Your task to perform on an android device: visit the assistant section in the google photos Image 0: 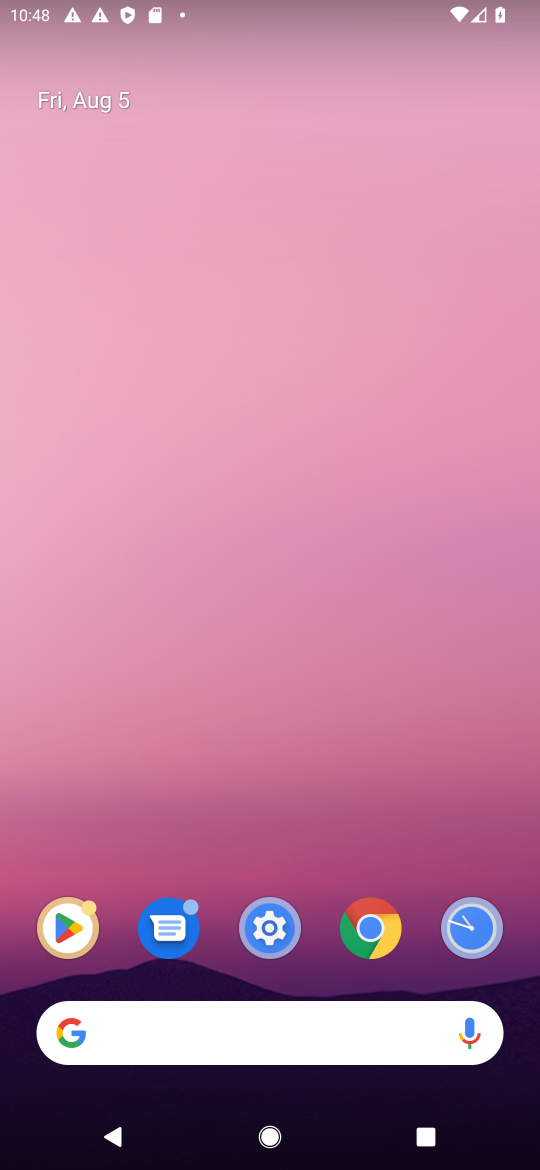
Step 0: drag from (311, 970) to (298, 39)
Your task to perform on an android device: visit the assistant section in the google photos Image 1: 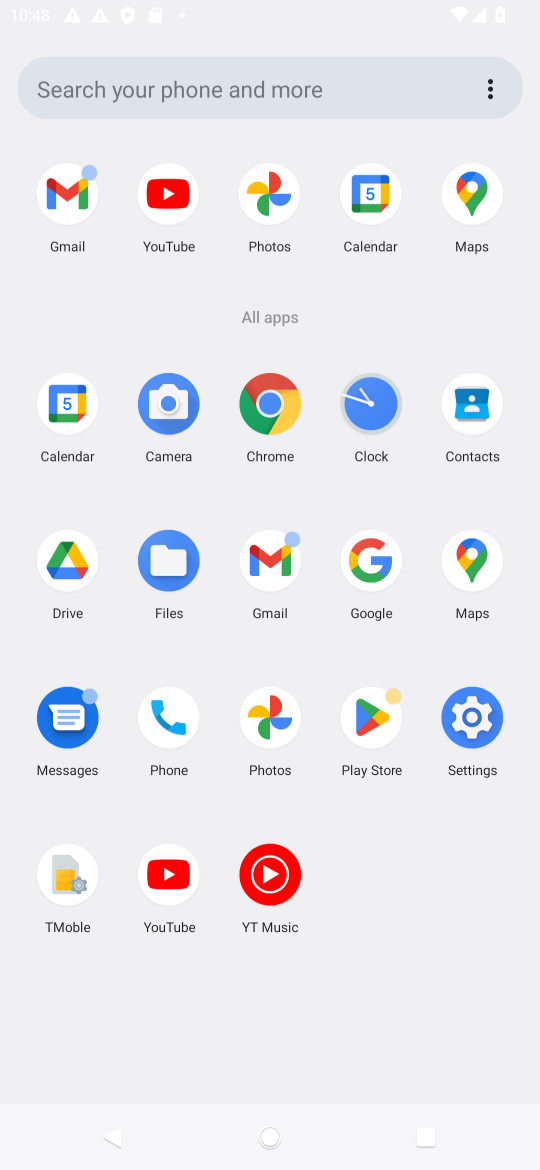
Step 1: click (263, 690)
Your task to perform on an android device: visit the assistant section in the google photos Image 2: 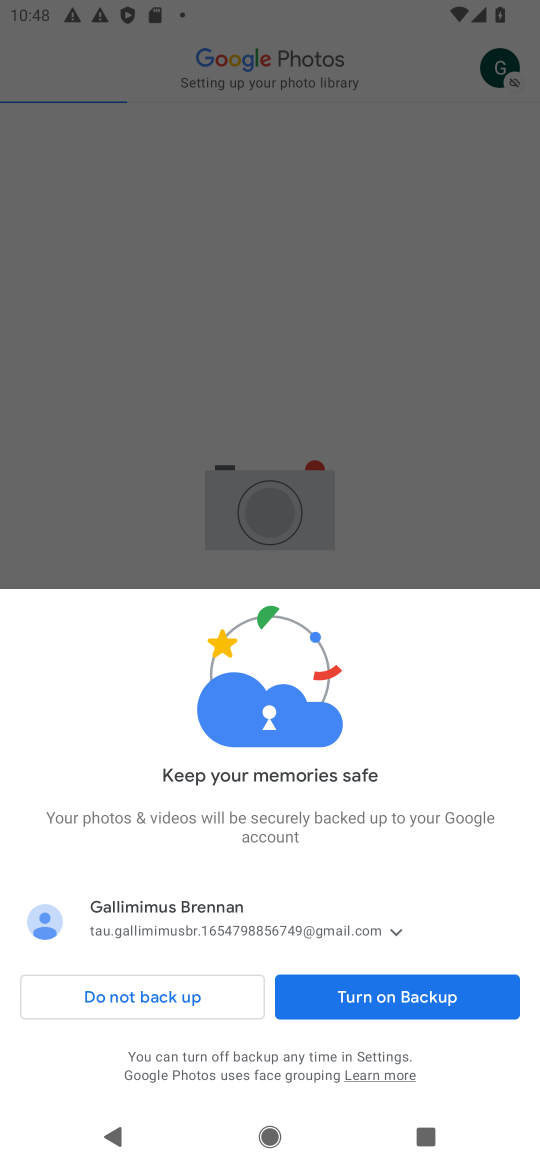
Step 2: click (326, 1011)
Your task to perform on an android device: visit the assistant section in the google photos Image 3: 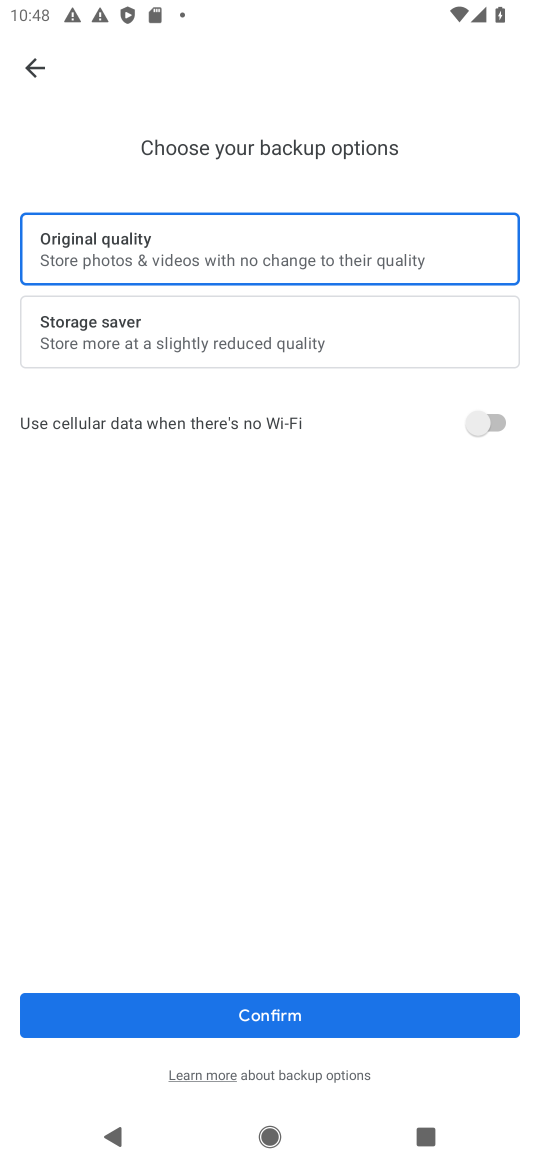
Step 3: click (274, 1011)
Your task to perform on an android device: visit the assistant section in the google photos Image 4: 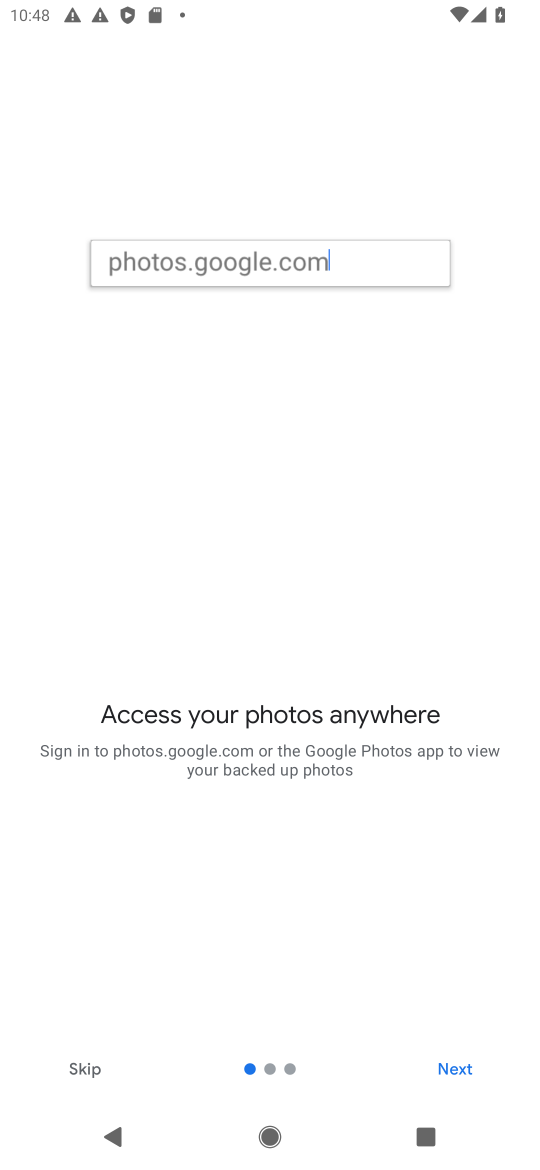
Step 4: click (109, 1067)
Your task to perform on an android device: visit the assistant section in the google photos Image 5: 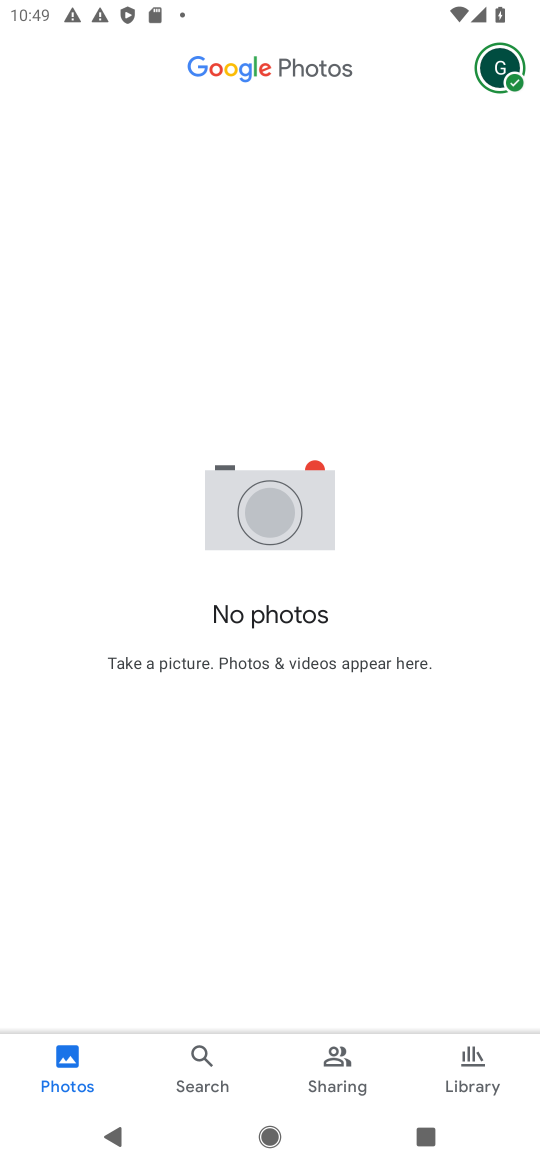
Step 5: click (403, 1072)
Your task to perform on an android device: visit the assistant section in the google photos Image 6: 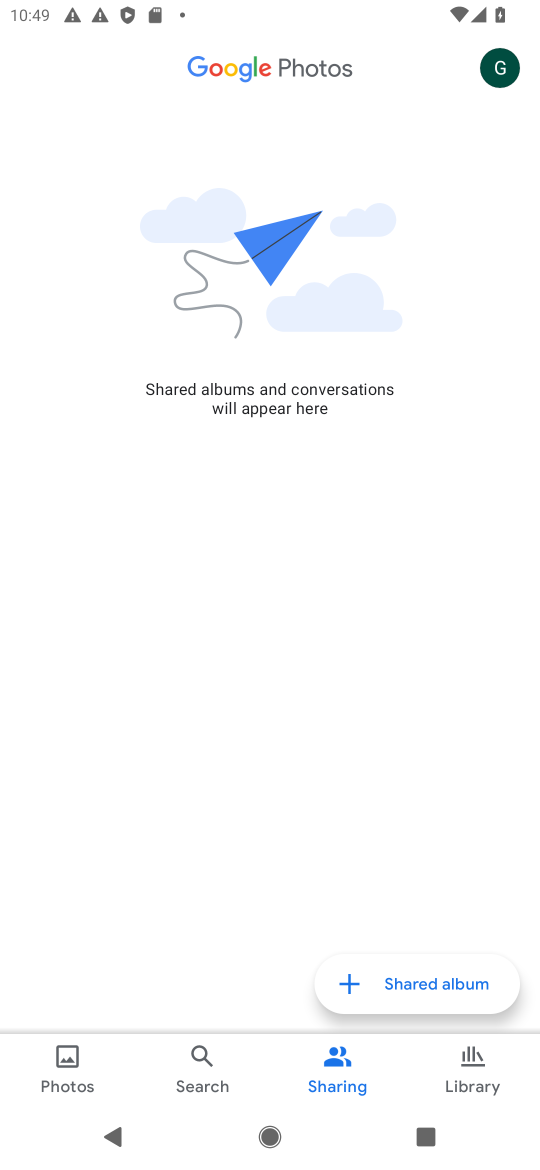
Step 6: click (454, 1062)
Your task to perform on an android device: visit the assistant section in the google photos Image 7: 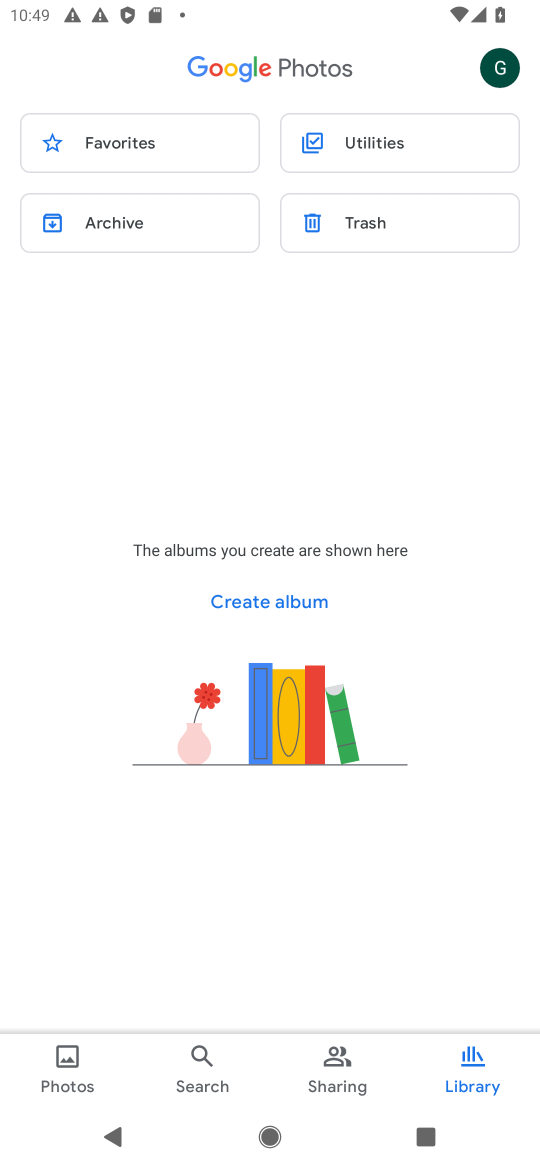
Step 7: task complete